Your task to perform on an android device: all mails in gmail Image 0: 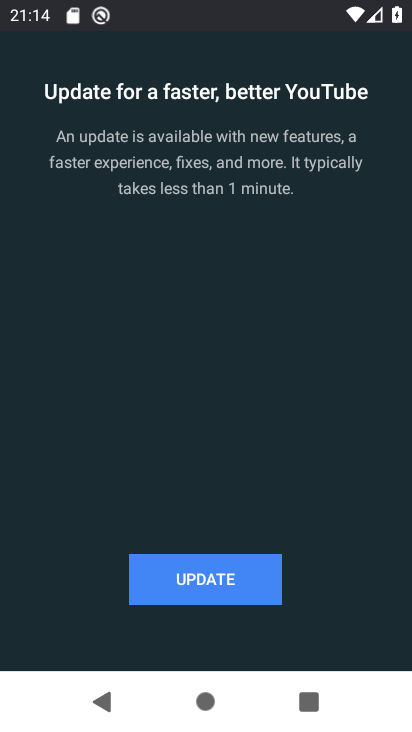
Step 0: press home button
Your task to perform on an android device: all mails in gmail Image 1: 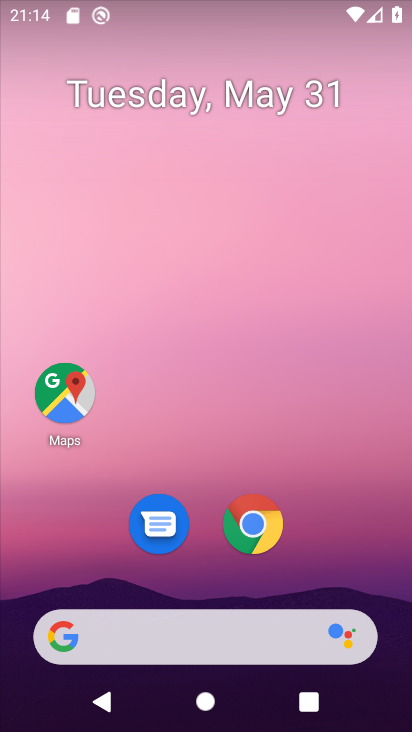
Step 1: drag from (315, 539) to (311, 3)
Your task to perform on an android device: all mails in gmail Image 2: 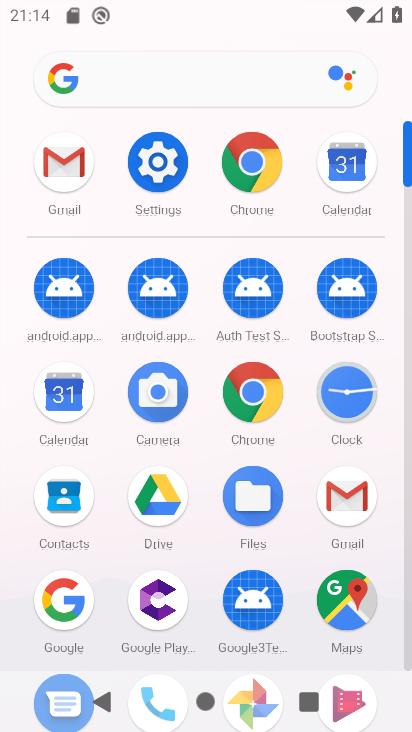
Step 2: click (70, 160)
Your task to perform on an android device: all mails in gmail Image 3: 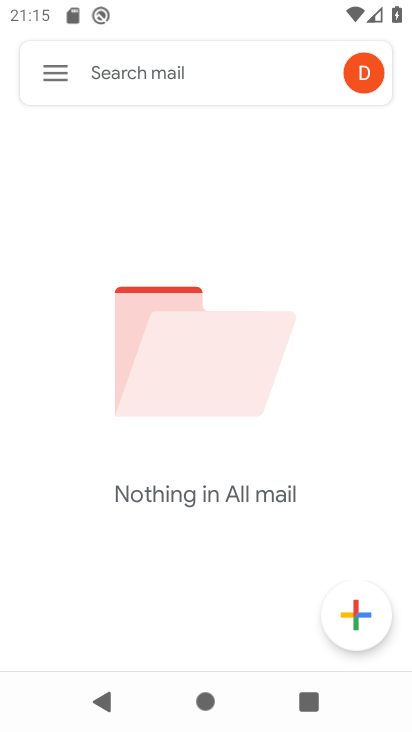
Step 3: task complete